Your task to perform on an android device: Search for sushi restaurants on Maps Image 0: 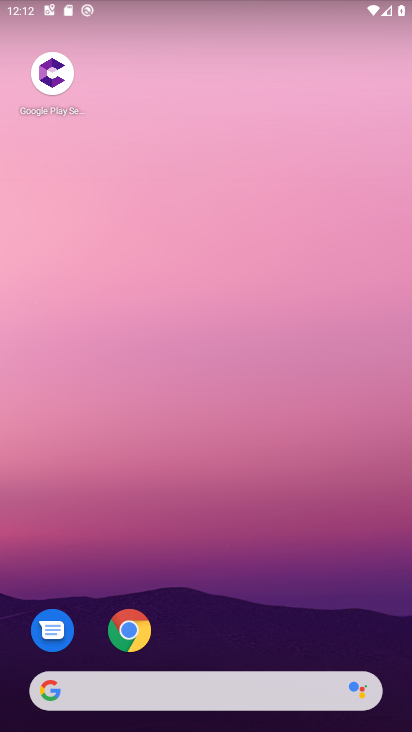
Step 0: drag from (242, 325) to (281, 192)
Your task to perform on an android device: Search for sushi restaurants on Maps Image 1: 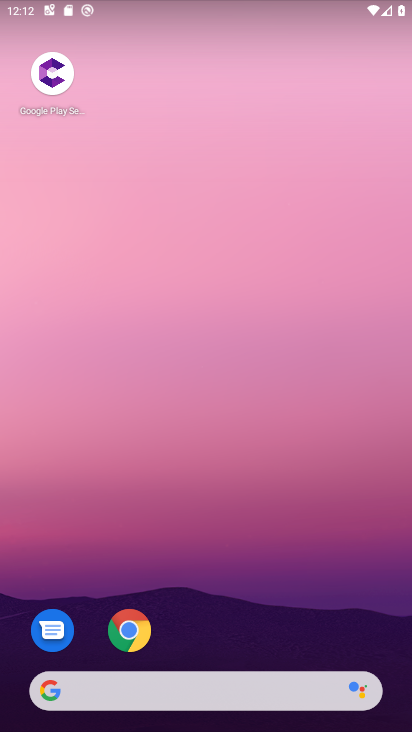
Step 1: drag from (198, 555) to (238, 109)
Your task to perform on an android device: Search for sushi restaurants on Maps Image 2: 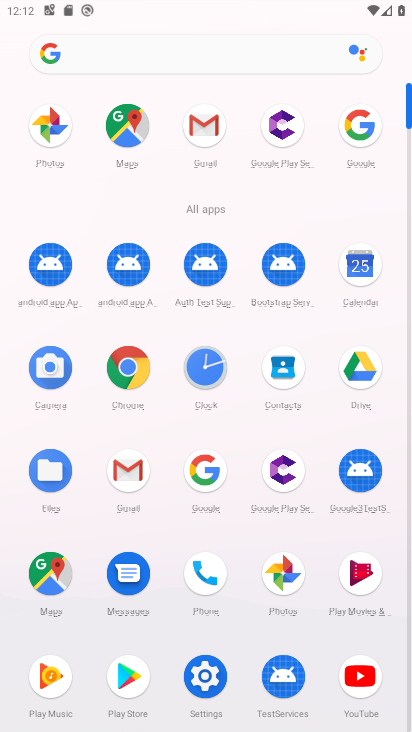
Step 2: click (37, 563)
Your task to perform on an android device: Search for sushi restaurants on Maps Image 3: 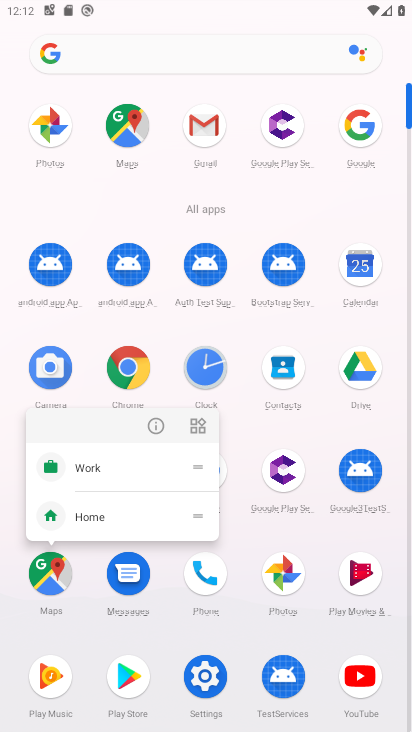
Step 3: click (152, 421)
Your task to perform on an android device: Search for sushi restaurants on Maps Image 4: 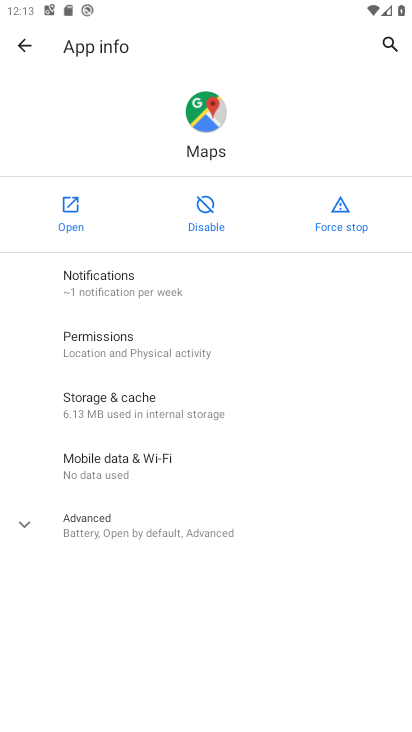
Step 4: click (64, 201)
Your task to perform on an android device: Search for sushi restaurants on Maps Image 5: 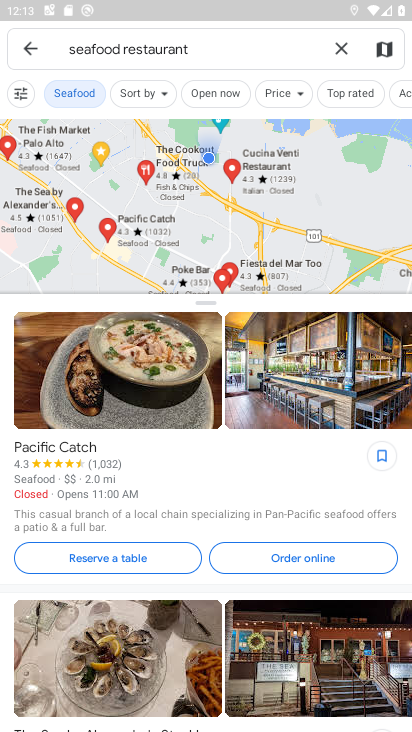
Step 5: drag from (202, 527) to (226, 190)
Your task to perform on an android device: Search for sushi restaurants on Maps Image 6: 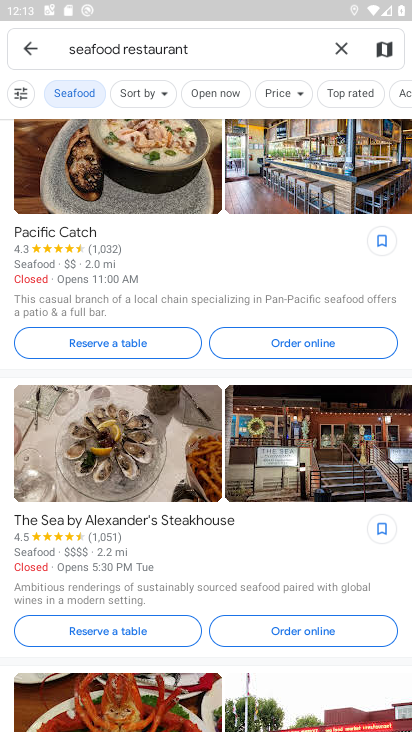
Step 6: drag from (263, 482) to (265, 173)
Your task to perform on an android device: Search for sushi restaurants on Maps Image 7: 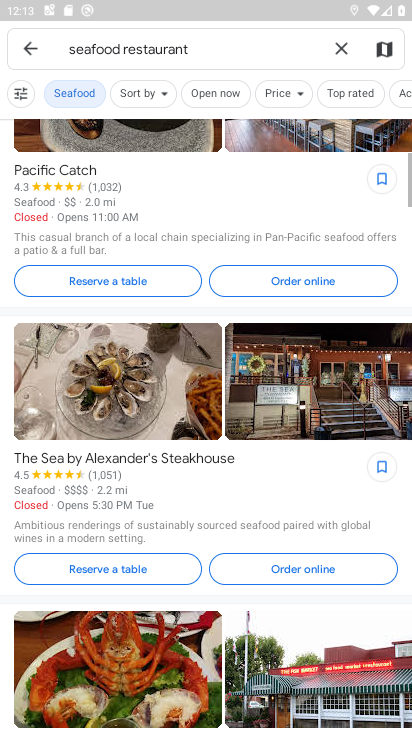
Step 7: drag from (260, 180) to (273, 714)
Your task to perform on an android device: Search for sushi restaurants on Maps Image 8: 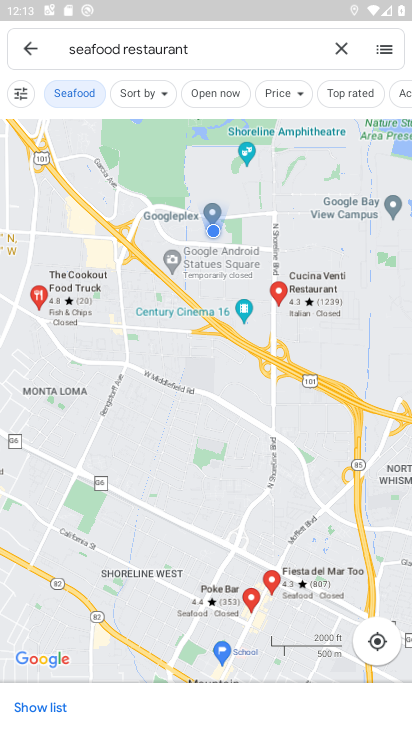
Step 8: click (339, 51)
Your task to perform on an android device: Search for sushi restaurants on Maps Image 9: 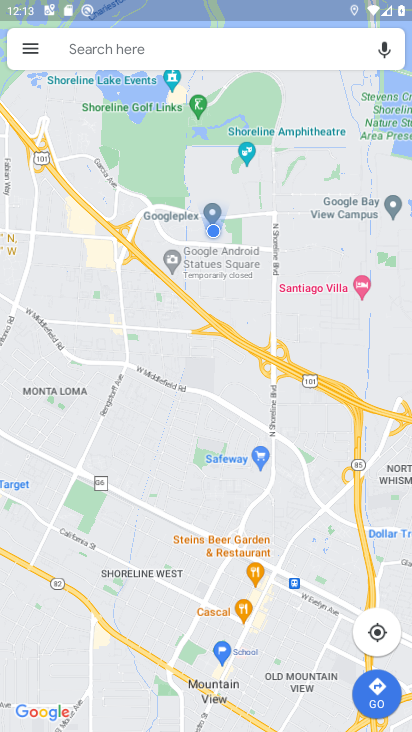
Step 9: click (173, 41)
Your task to perform on an android device: Search for sushi restaurants on Maps Image 10: 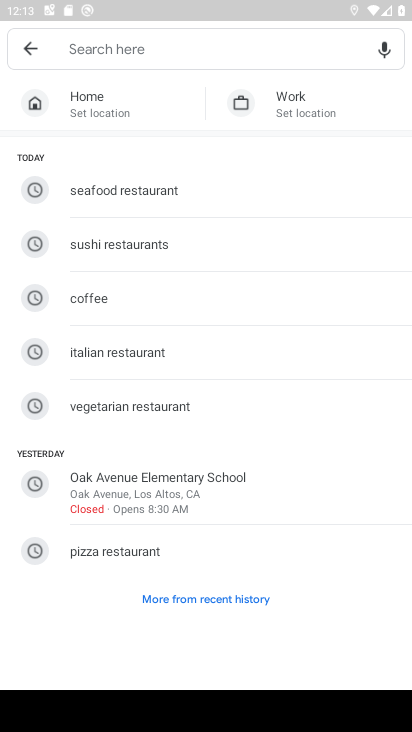
Step 10: click (169, 254)
Your task to perform on an android device: Search for sushi restaurants on Maps Image 11: 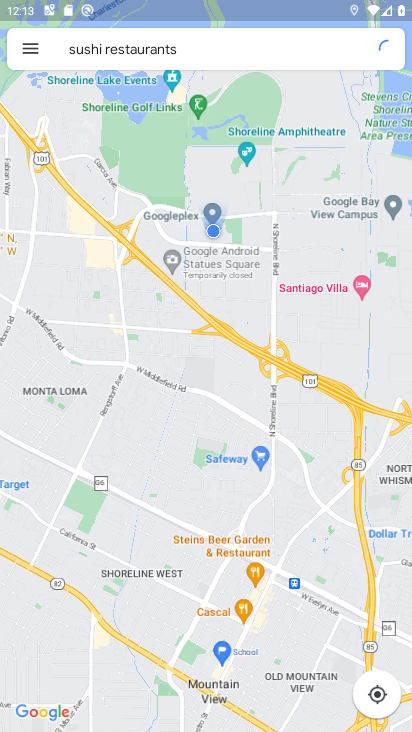
Step 11: task complete